Your task to perform on an android device: Go to Yahoo.com Image 0: 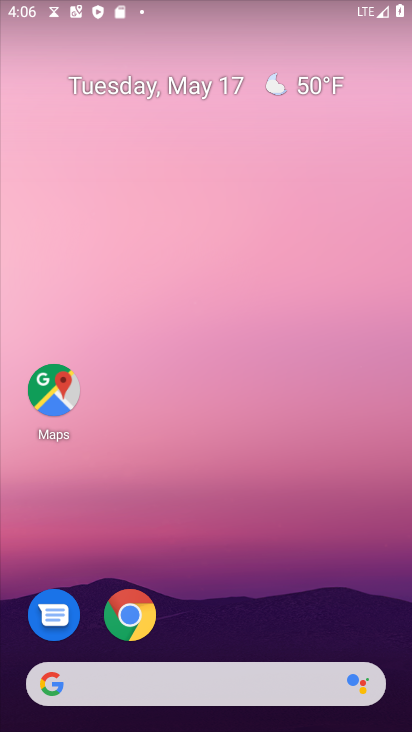
Step 0: drag from (274, 716) to (201, 131)
Your task to perform on an android device: Go to Yahoo.com Image 1: 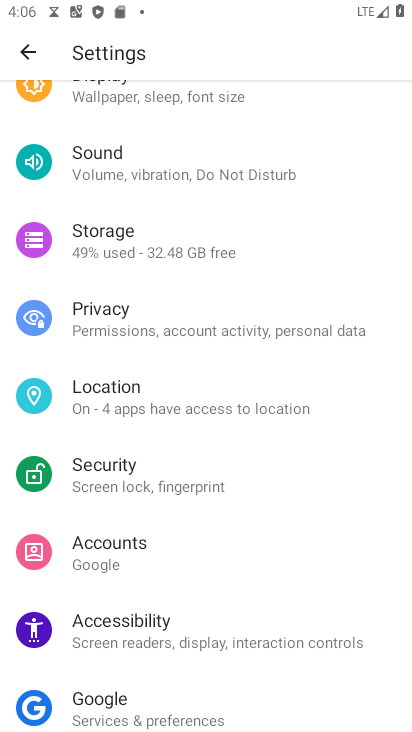
Step 1: press home button
Your task to perform on an android device: Go to Yahoo.com Image 2: 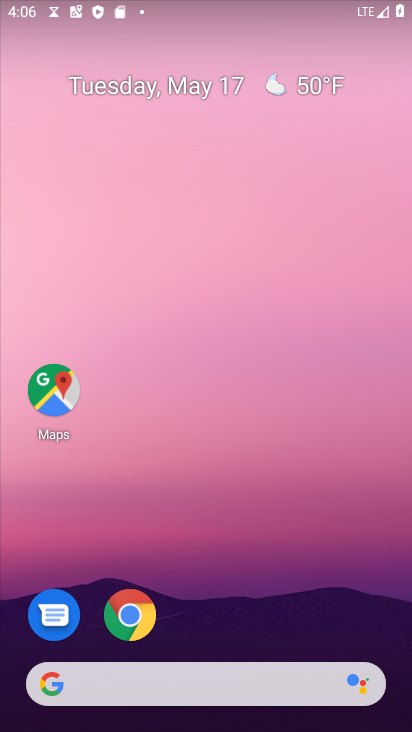
Step 2: drag from (307, 579) to (219, 161)
Your task to perform on an android device: Go to Yahoo.com Image 3: 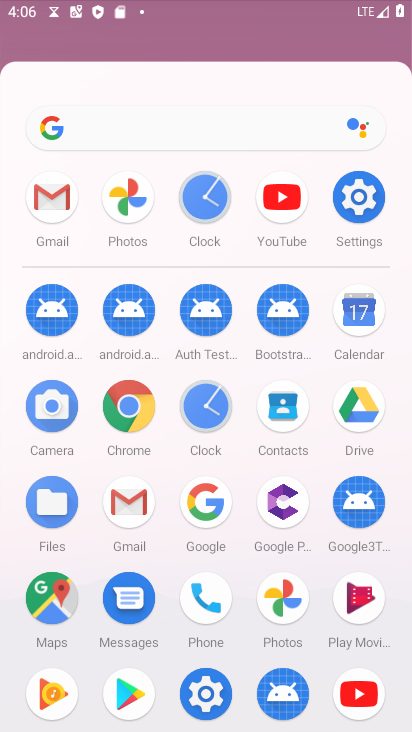
Step 3: drag from (287, 544) to (227, 205)
Your task to perform on an android device: Go to Yahoo.com Image 4: 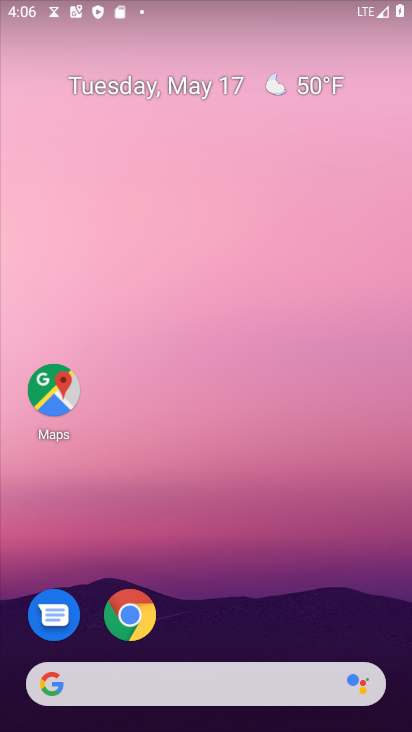
Step 4: drag from (270, 630) to (200, 121)
Your task to perform on an android device: Go to Yahoo.com Image 5: 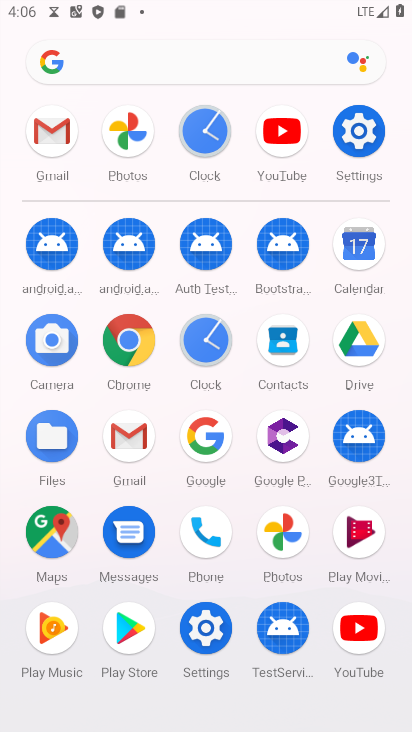
Step 5: click (132, 340)
Your task to perform on an android device: Go to Yahoo.com Image 6: 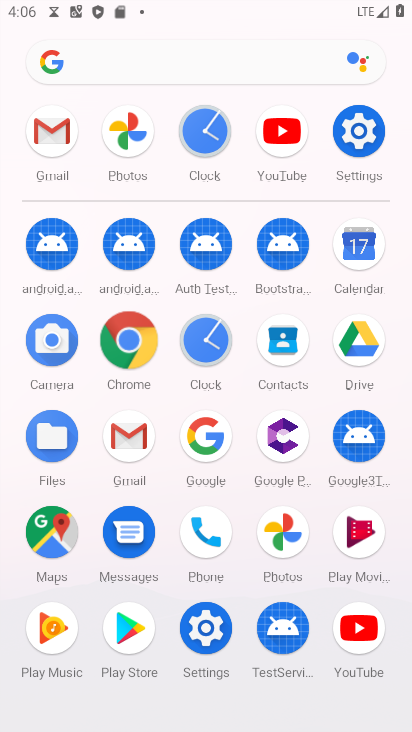
Step 6: click (132, 340)
Your task to perform on an android device: Go to Yahoo.com Image 7: 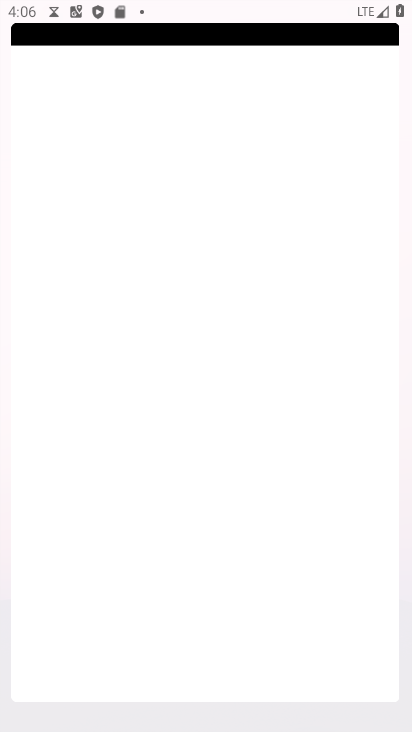
Step 7: click (131, 341)
Your task to perform on an android device: Go to Yahoo.com Image 8: 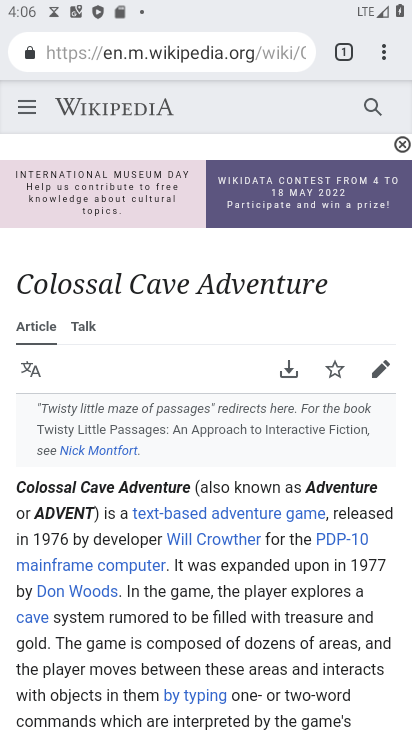
Step 8: drag from (382, 50) to (167, 137)
Your task to perform on an android device: Go to Yahoo.com Image 9: 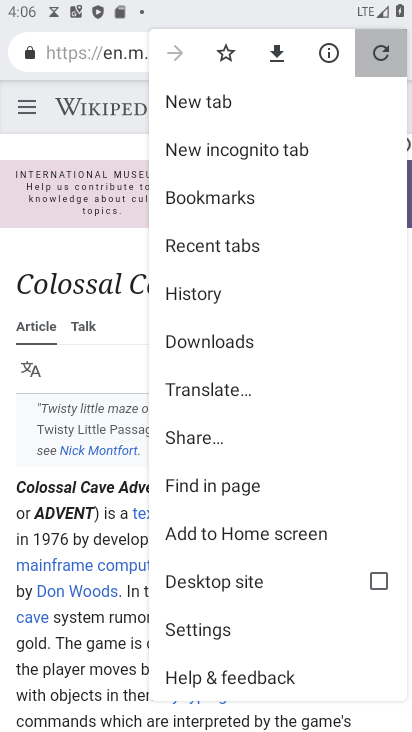
Step 9: click (167, 116)
Your task to perform on an android device: Go to Yahoo.com Image 10: 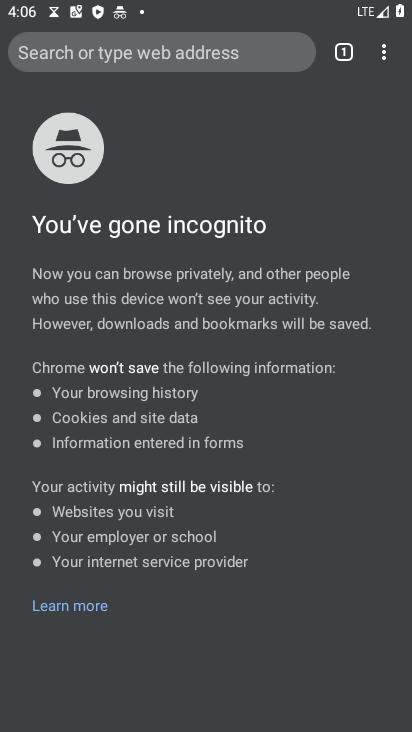
Step 10: click (377, 52)
Your task to perform on an android device: Go to Yahoo.com Image 11: 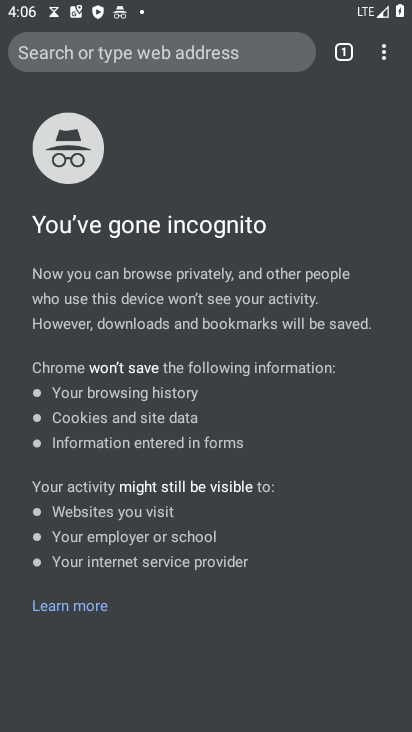
Step 11: click (378, 58)
Your task to perform on an android device: Go to Yahoo.com Image 12: 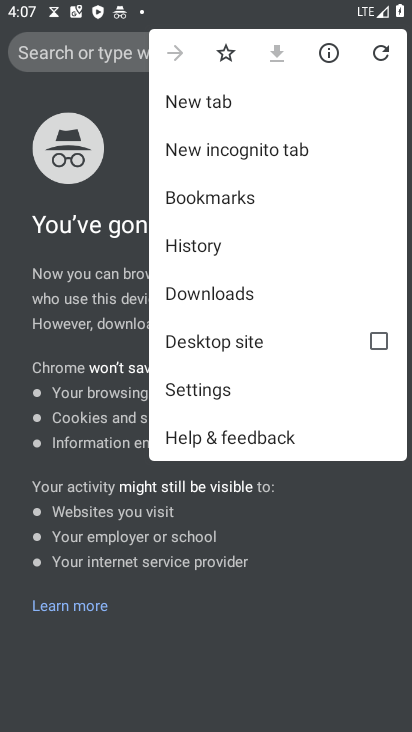
Step 12: click (217, 95)
Your task to perform on an android device: Go to Yahoo.com Image 13: 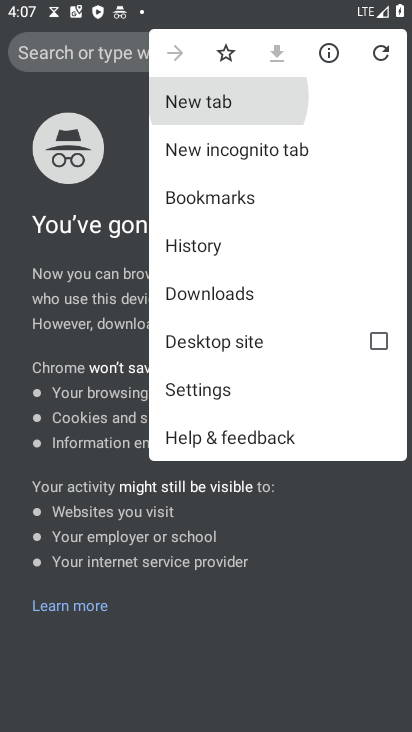
Step 13: click (217, 95)
Your task to perform on an android device: Go to Yahoo.com Image 14: 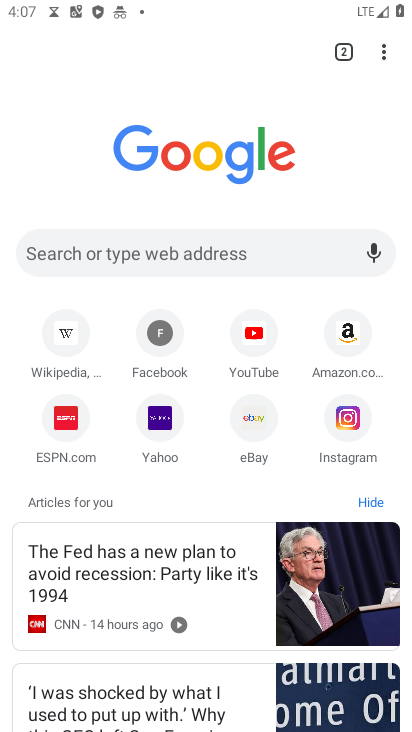
Step 14: click (164, 415)
Your task to perform on an android device: Go to Yahoo.com Image 15: 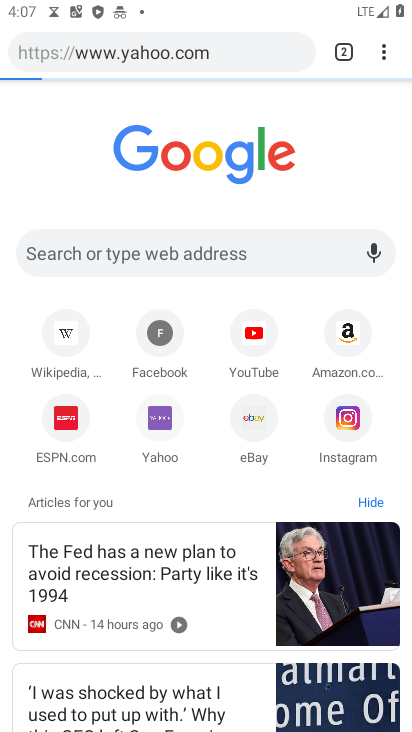
Step 15: click (164, 415)
Your task to perform on an android device: Go to Yahoo.com Image 16: 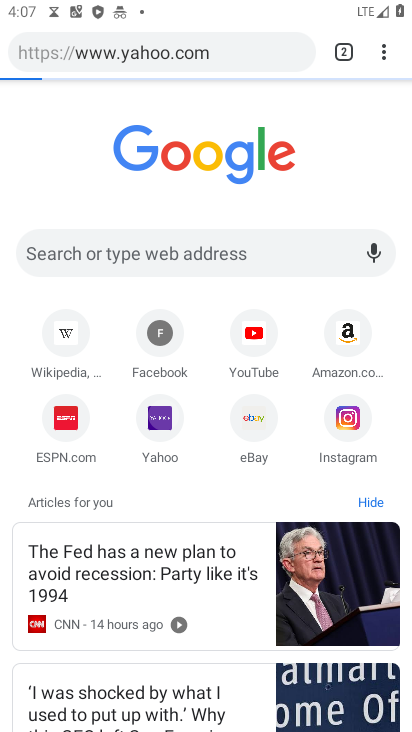
Step 16: click (164, 415)
Your task to perform on an android device: Go to Yahoo.com Image 17: 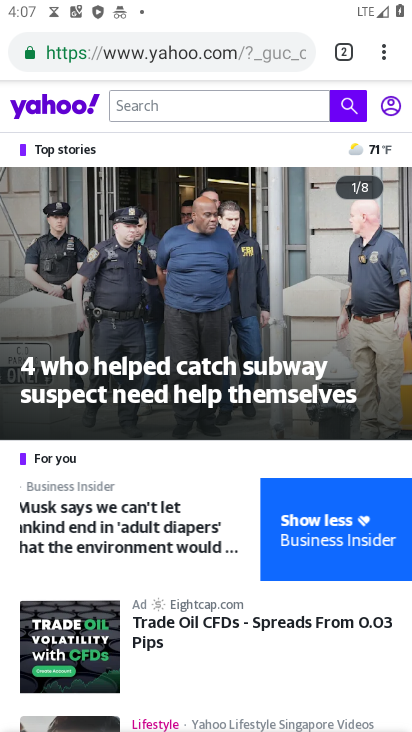
Step 17: task complete